Your task to perform on an android device: Open ESPN.com Image 0: 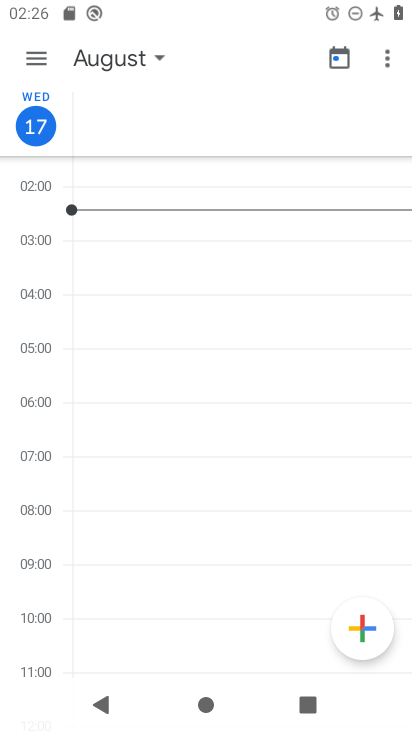
Step 0: press home button
Your task to perform on an android device: Open ESPN.com Image 1: 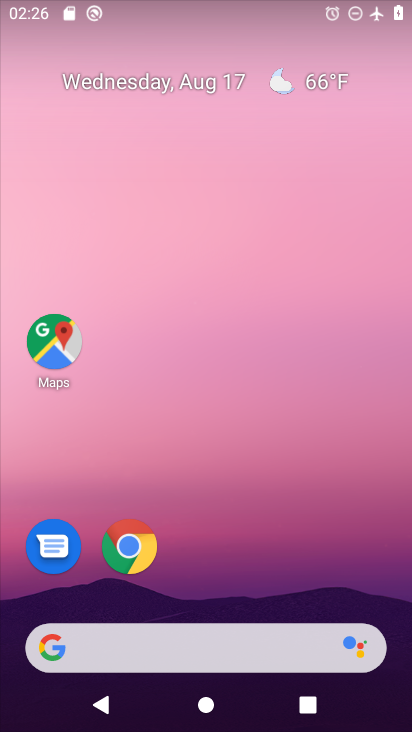
Step 1: click (132, 548)
Your task to perform on an android device: Open ESPN.com Image 2: 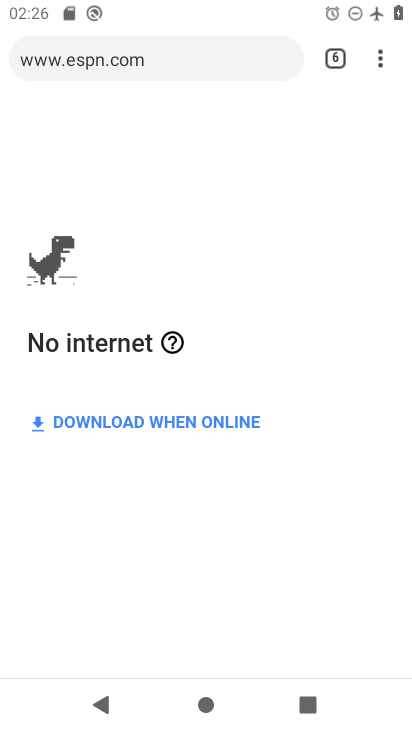
Step 2: click (395, 59)
Your task to perform on an android device: Open ESPN.com Image 3: 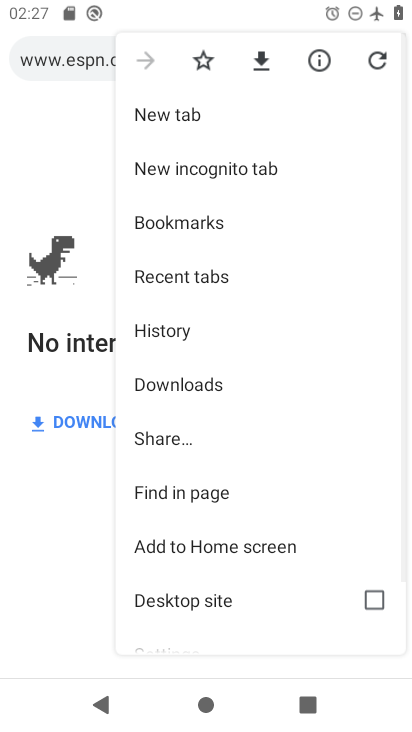
Step 3: click (150, 118)
Your task to perform on an android device: Open ESPN.com Image 4: 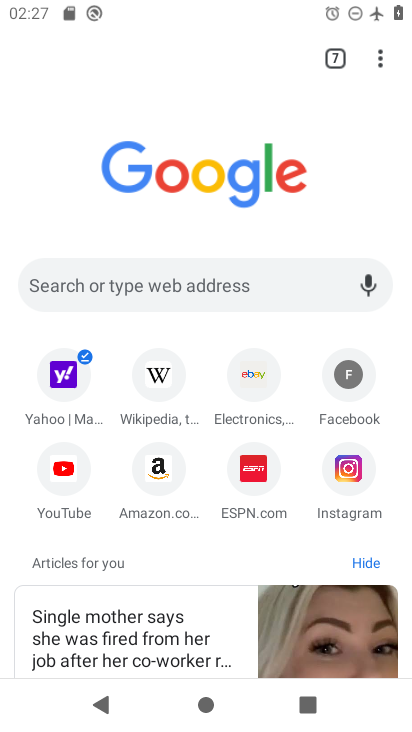
Step 4: click (243, 472)
Your task to perform on an android device: Open ESPN.com Image 5: 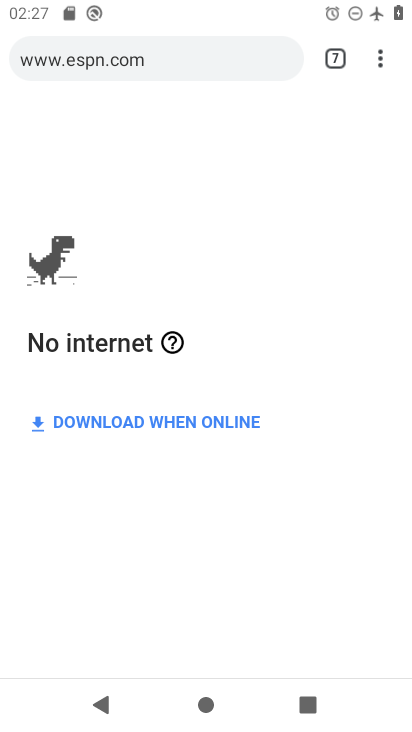
Step 5: task complete